Your task to perform on an android device: Go to CNN.com Image 0: 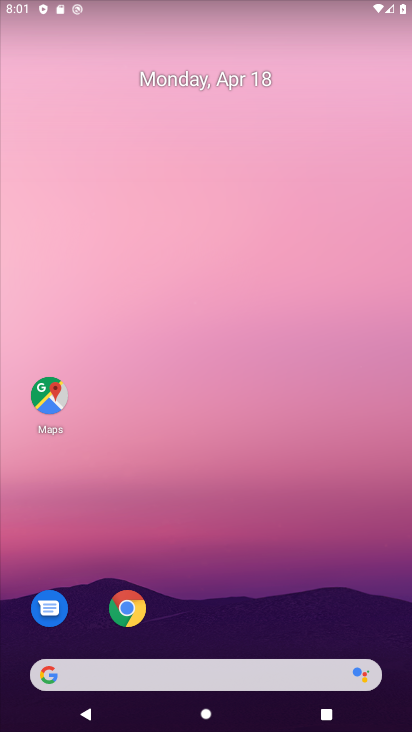
Step 0: click (125, 610)
Your task to perform on an android device: Go to CNN.com Image 1: 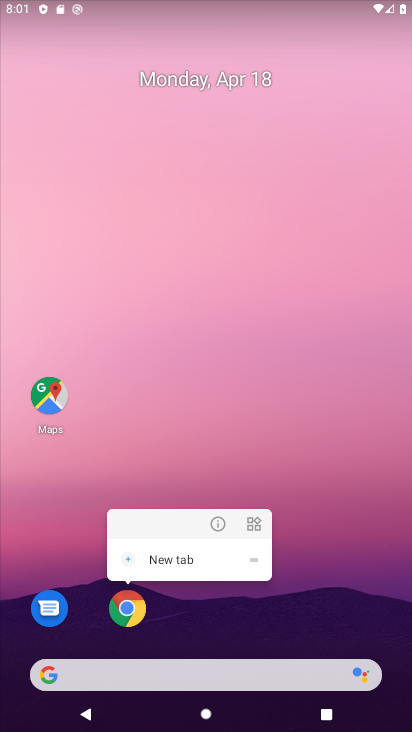
Step 1: click (125, 610)
Your task to perform on an android device: Go to CNN.com Image 2: 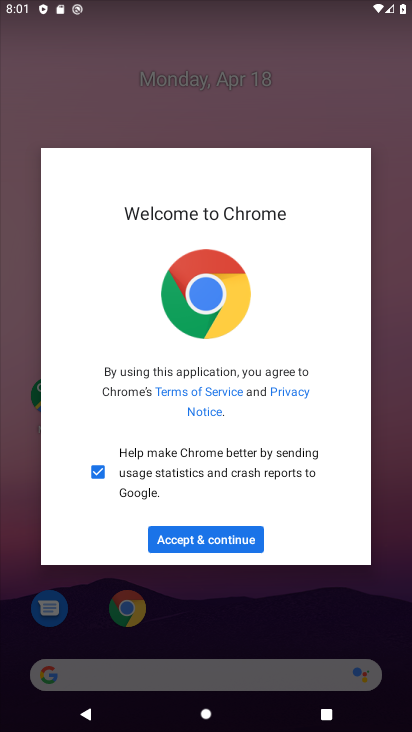
Step 2: click (171, 536)
Your task to perform on an android device: Go to CNN.com Image 3: 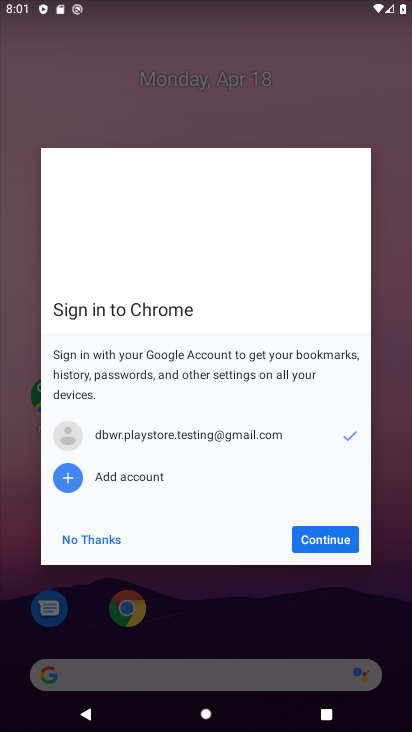
Step 3: click (310, 534)
Your task to perform on an android device: Go to CNN.com Image 4: 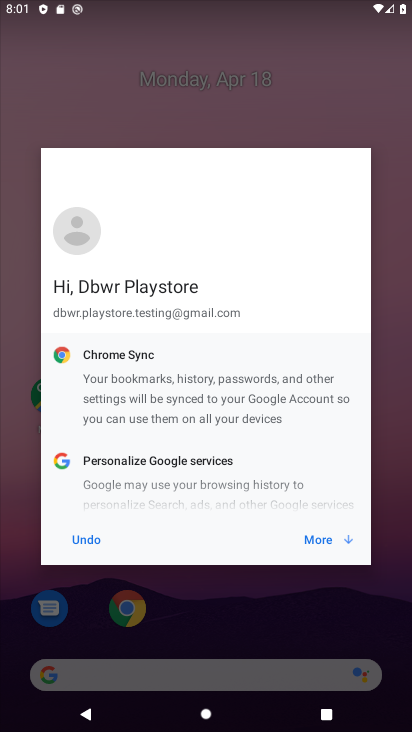
Step 4: click (310, 534)
Your task to perform on an android device: Go to CNN.com Image 5: 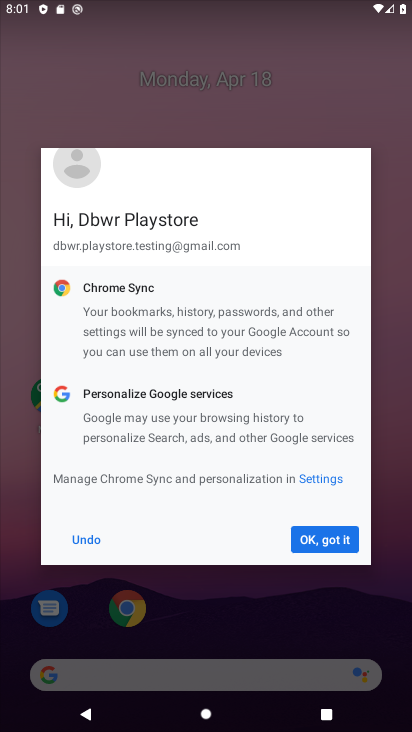
Step 5: click (310, 534)
Your task to perform on an android device: Go to CNN.com Image 6: 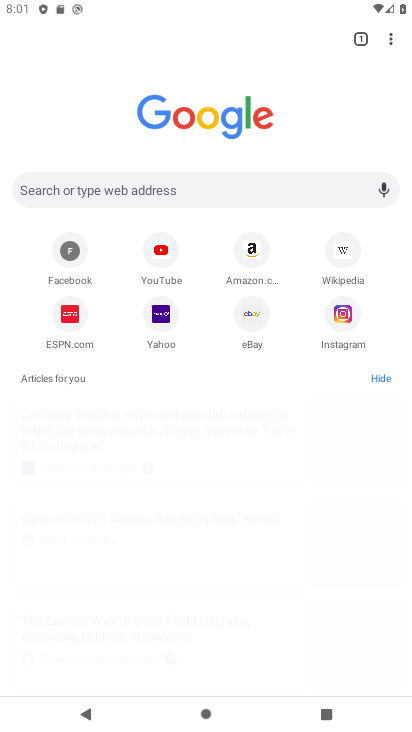
Step 6: click (180, 186)
Your task to perform on an android device: Go to CNN.com Image 7: 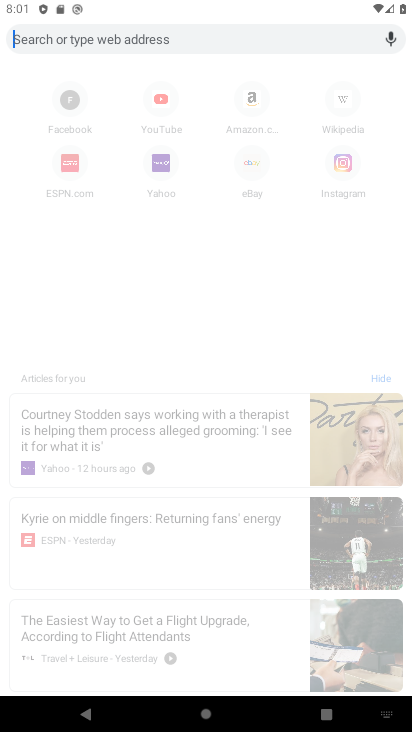
Step 7: click (228, 25)
Your task to perform on an android device: Go to CNN.com Image 8: 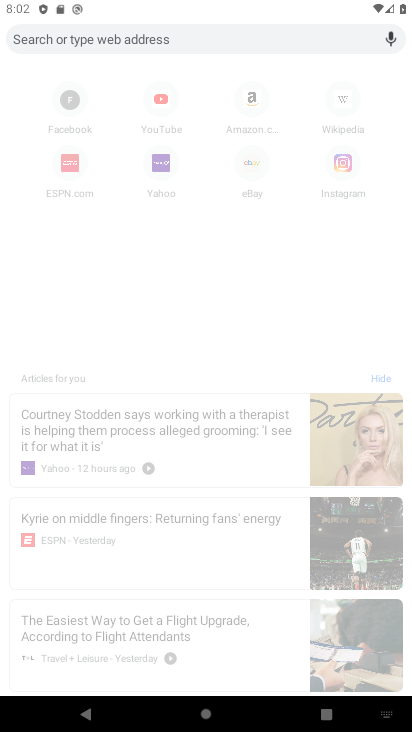
Step 8: type "CNN.com"
Your task to perform on an android device: Go to CNN.com Image 9: 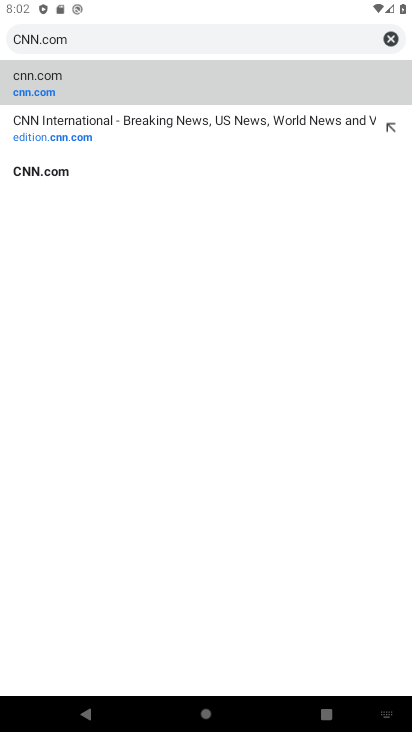
Step 9: click (53, 94)
Your task to perform on an android device: Go to CNN.com Image 10: 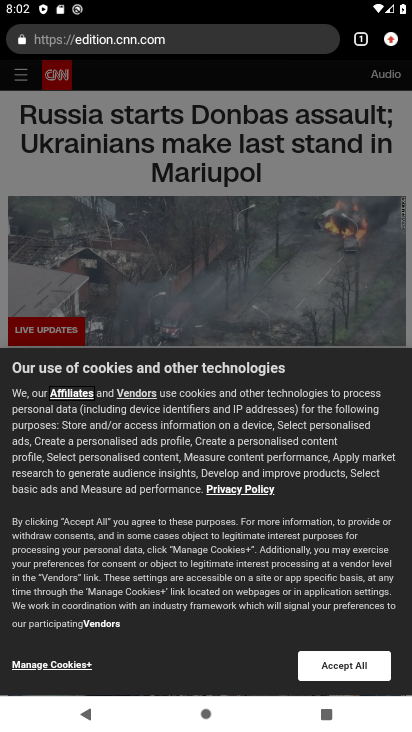
Step 10: task complete